Your task to perform on an android device: Open calendar and show me the second week of next month Image 0: 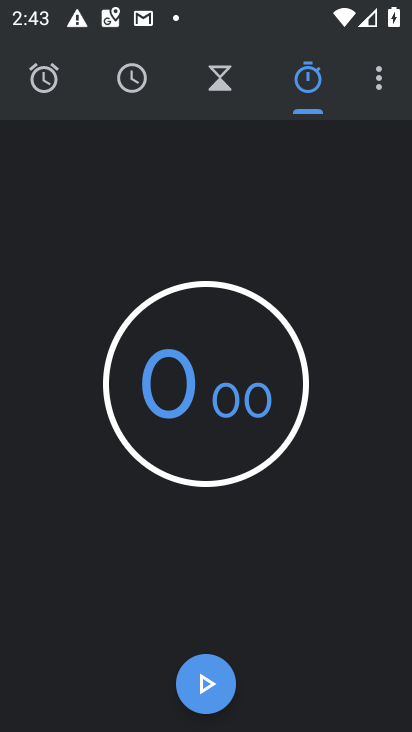
Step 0: press home button
Your task to perform on an android device: Open calendar and show me the second week of next month Image 1: 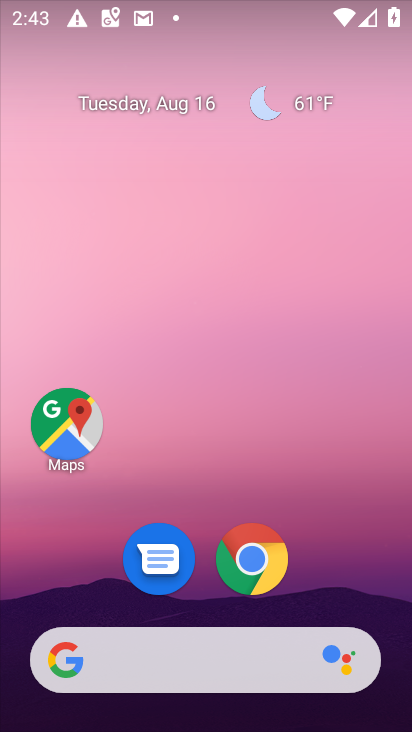
Step 1: drag from (382, 609) to (379, 76)
Your task to perform on an android device: Open calendar and show me the second week of next month Image 2: 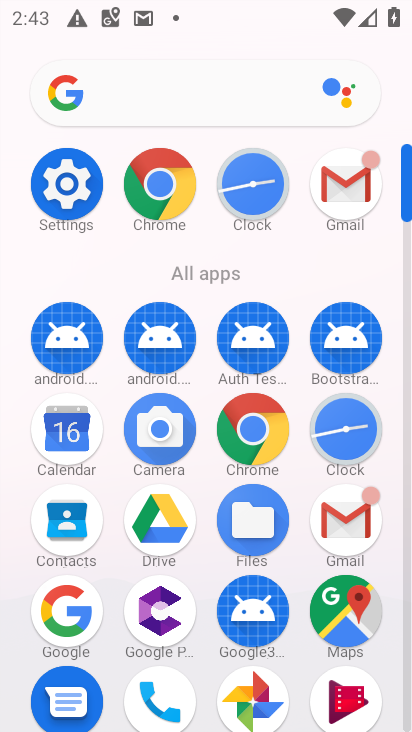
Step 2: click (64, 434)
Your task to perform on an android device: Open calendar and show me the second week of next month Image 3: 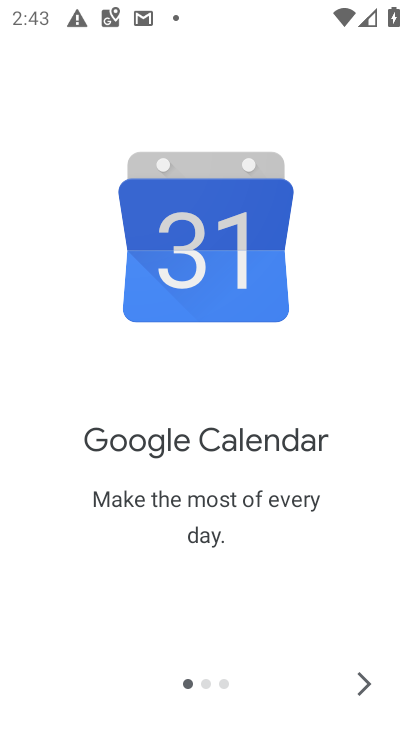
Step 3: click (359, 683)
Your task to perform on an android device: Open calendar and show me the second week of next month Image 4: 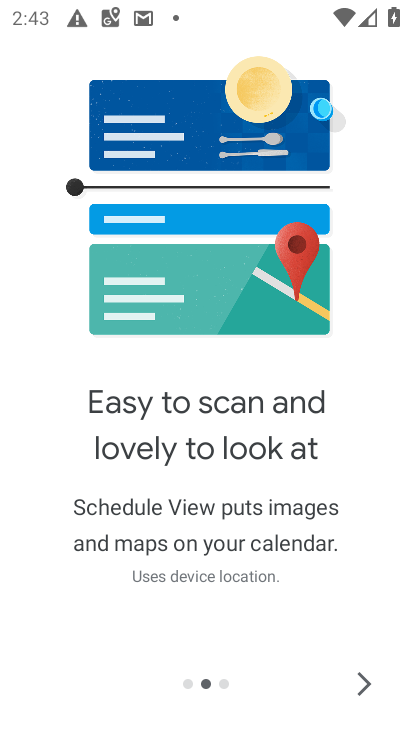
Step 4: click (360, 678)
Your task to perform on an android device: Open calendar and show me the second week of next month Image 5: 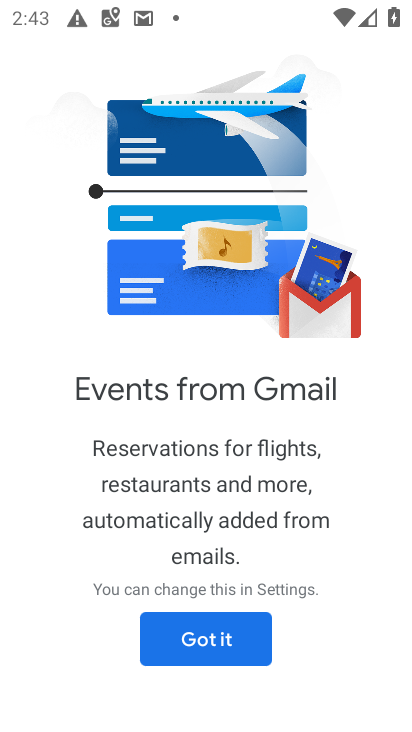
Step 5: click (194, 640)
Your task to perform on an android device: Open calendar and show me the second week of next month Image 6: 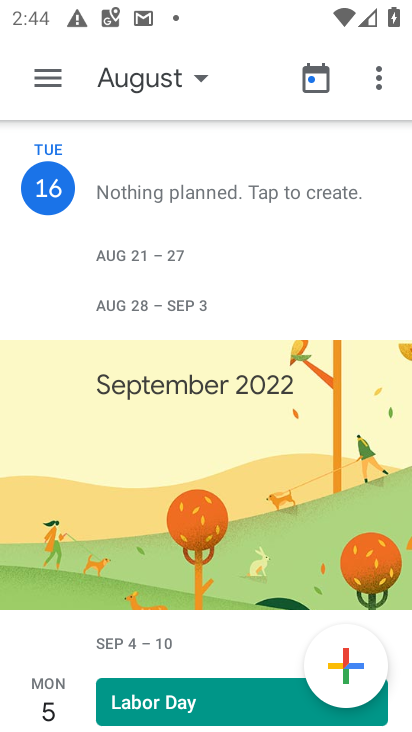
Step 6: click (43, 74)
Your task to perform on an android device: Open calendar and show me the second week of next month Image 7: 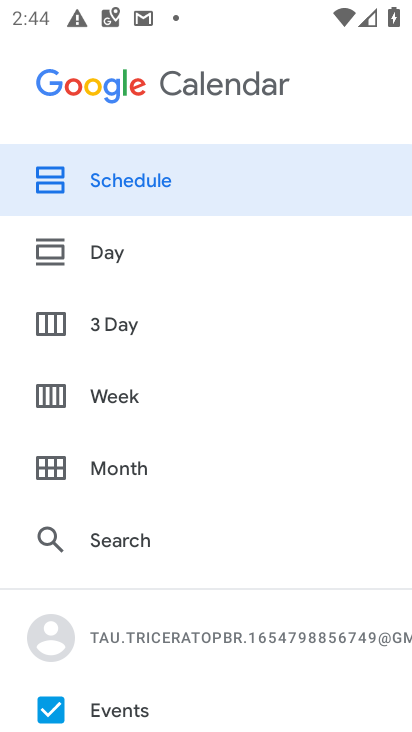
Step 7: click (131, 399)
Your task to perform on an android device: Open calendar and show me the second week of next month Image 8: 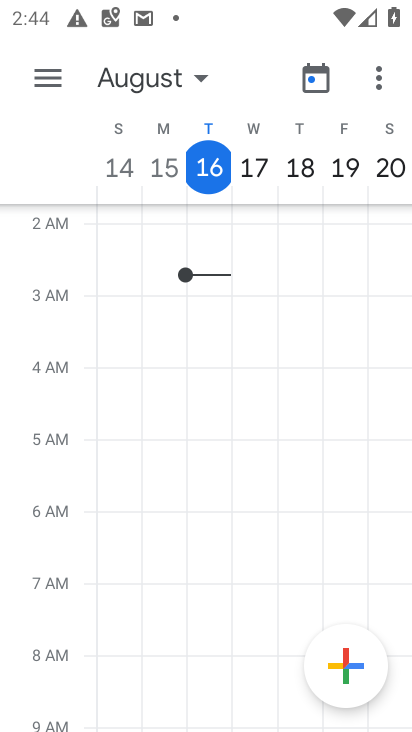
Step 8: click (200, 76)
Your task to perform on an android device: Open calendar and show me the second week of next month Image 9: 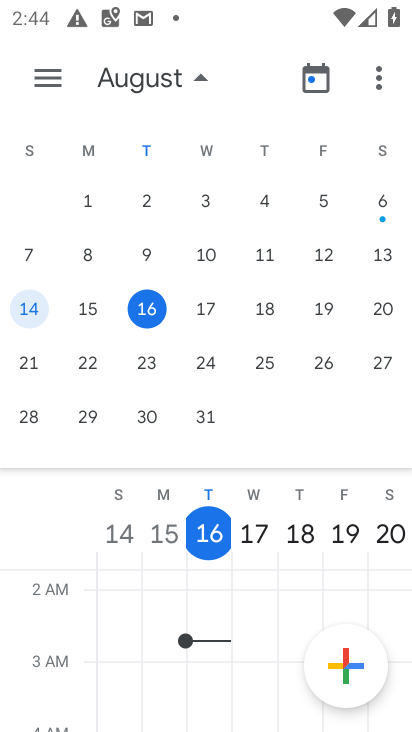
Step 9: drag from (372, 302) to (45, 284)
Your task to perform on an android device: Open calendar and show me the second week of next month Image 10: 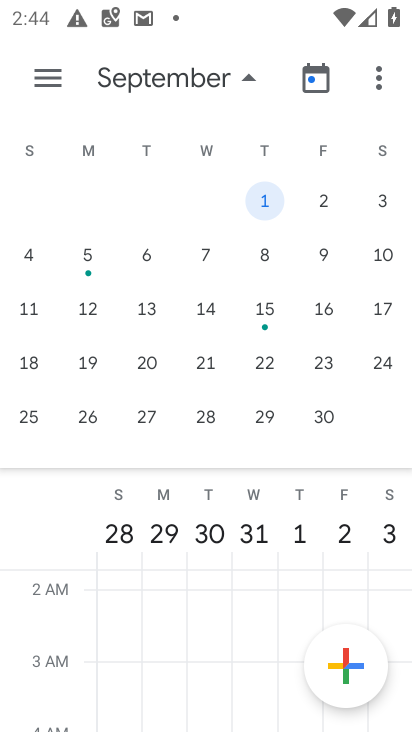
Step 10: click (27, 305)
Your task to perform on an android device: Open calendar and show me the second week of next month Image 11: 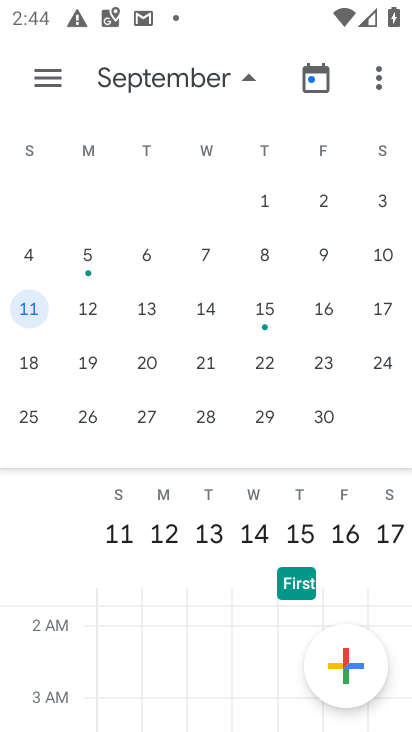
Step 11: task complete